Your task to perform on an android device: turn pop-ups on in chrome Image 0: 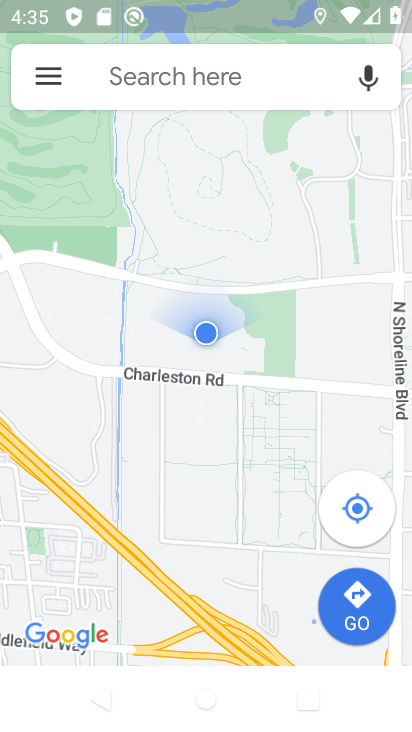
Step 0: press home button
Your task to perform on an android device: turn pop-ups on in chrome Image 1: 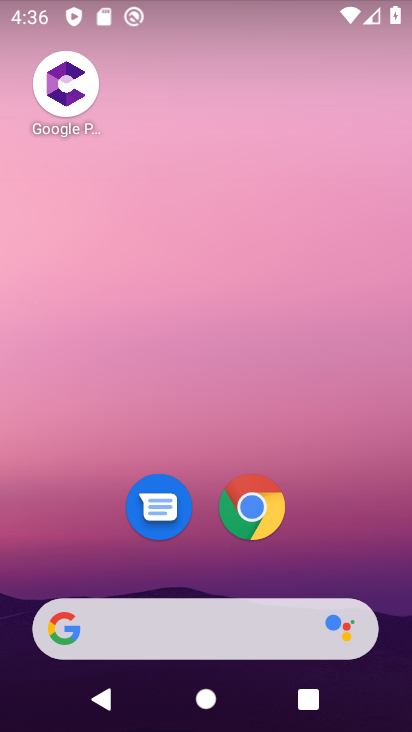
Step 1: click (271, 512)
Your task to perform on an android device: turn pop-ups on in chrome Image 2: 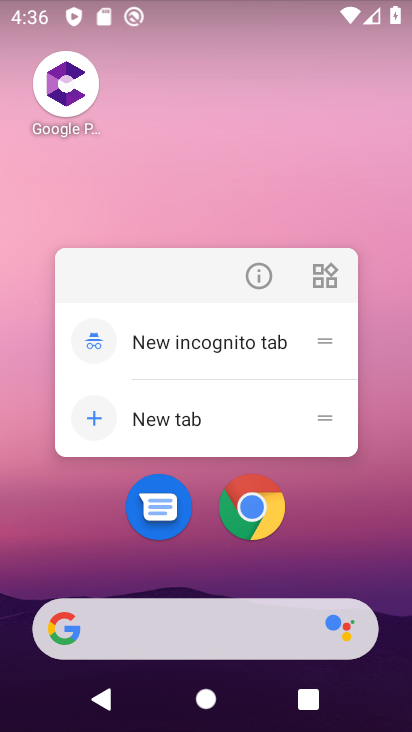
Step 2: click (260, 509)
Your task to perform on an android device: turn pop-ups on in chrome Image 3: 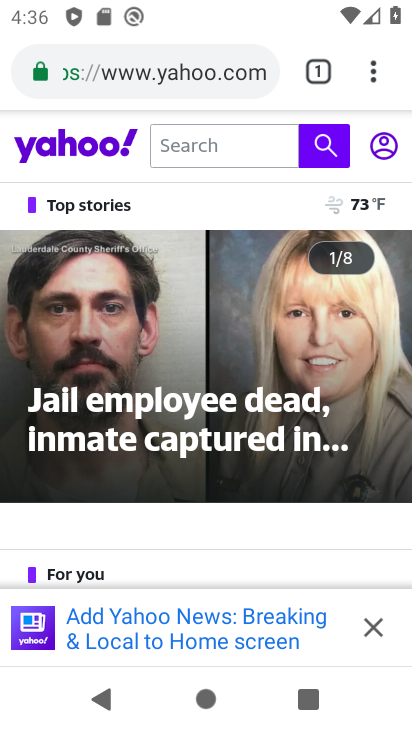
Step 3: click (379, 74)
Your task to perform on an android device: turn pop-ups on in chrome Image 4: 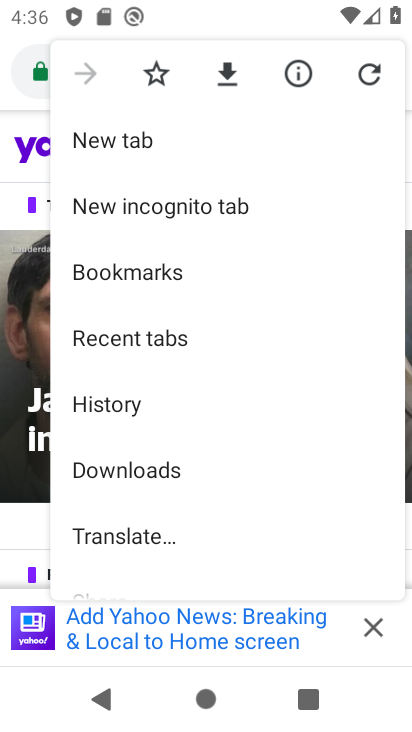
Step 4: drag from (157, 490) to (222, 183)
Your task to perform on an android device: turn pop-ups on in chrome Image 5: 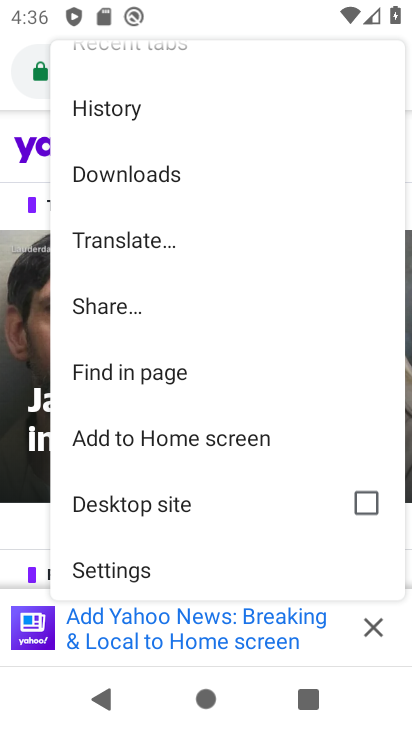
Step 5: drag from (148, 467) to (207, 167)
Your task to perform on an android device: turn pop-ups on in chrome Image 6: 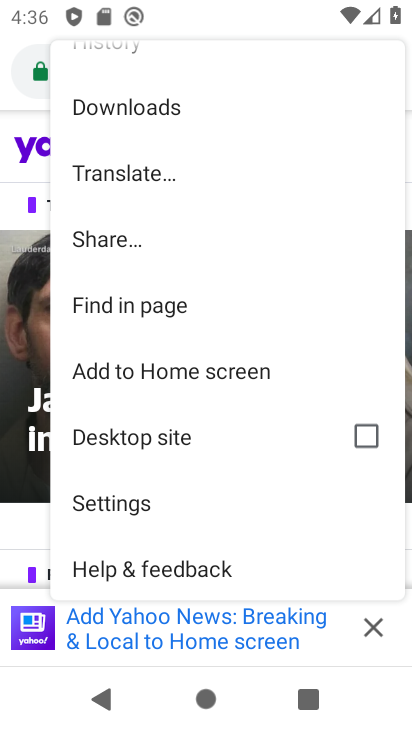
Step 6: click (151, 512)
Your task to perform on an android device: turn pop-ups on in chrome Image 7: 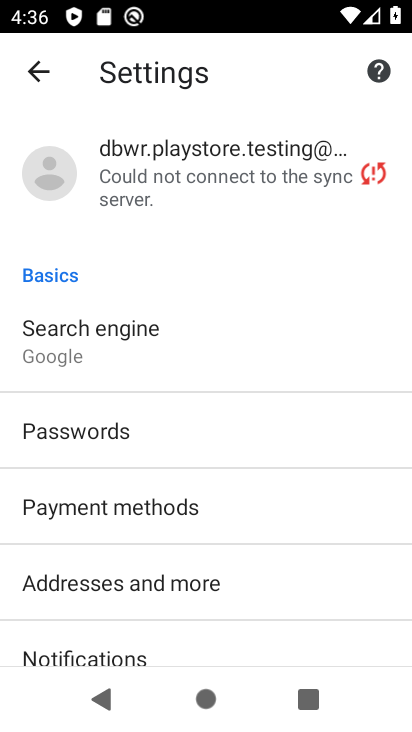
Step 7: drag from (123, 567) to (140, 334)
Your task to perform on an android device: turn pop-ups on in chrome Image 8: 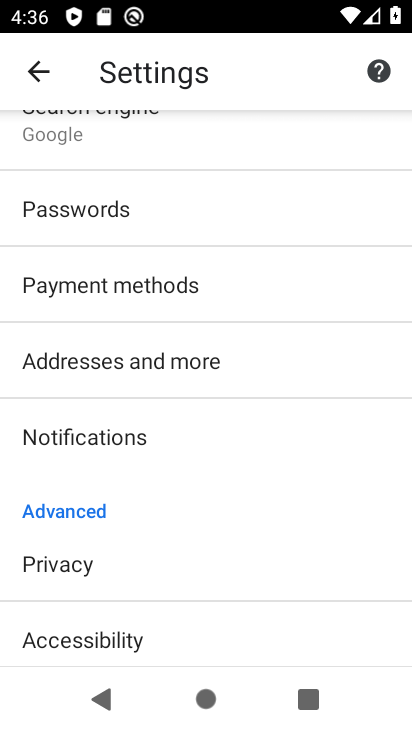
Step 8: drag from (119, 563) to (130, 151)
Your task to perform on an android device: turn pop-ups on in chrome Image 9: 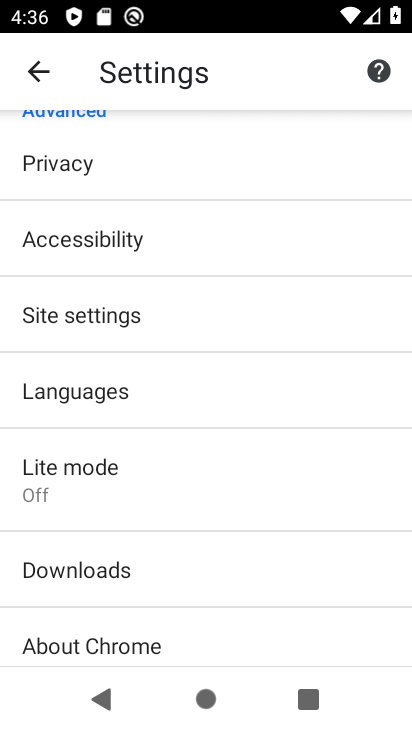
Step 9: click (93, 324)
Your task to perform on an android device: turn pop-ups on in chrome Image 10: 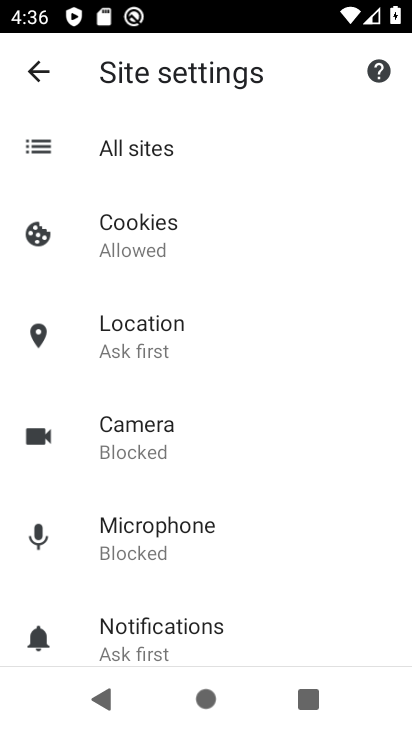
Step 10: drag from (207, 578) to (241, 274)
Your task to perform on an android device: turn pop-ups on in chrome Image 11: 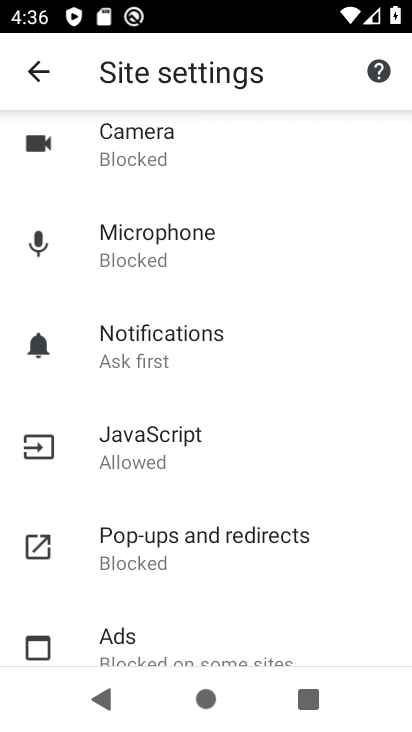
Step 11: click (186, 548)
Your task to perform on an android device: turn pop-ups on in chrome Image 12: 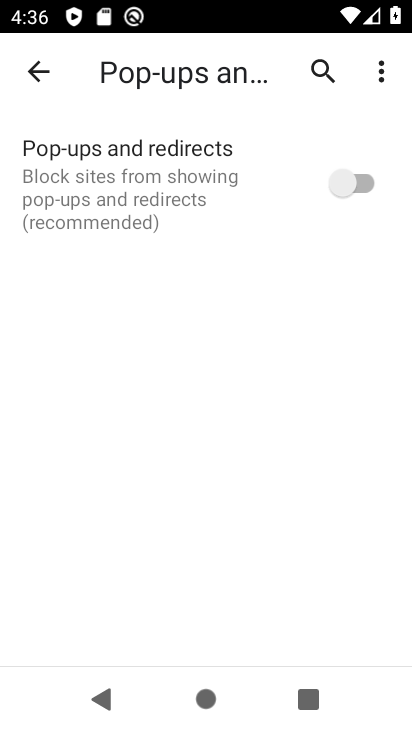
Step 12: click (183, 545)
Your task to perform on an android device: turn pop-ups on in chrome Image 13: 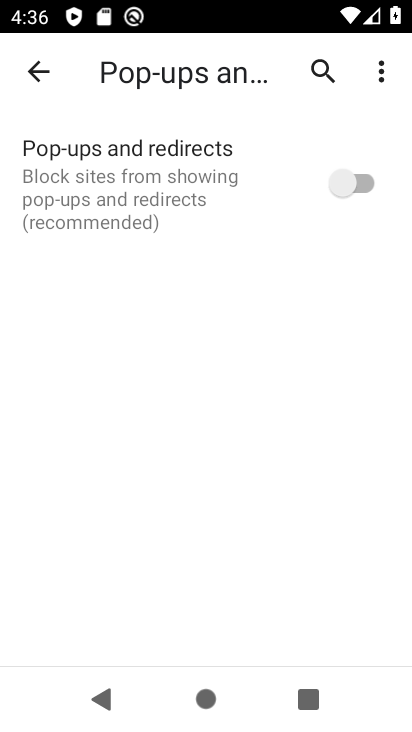
Step 13: click (379, 183)
Your task to perform on an android device: turn pop-ups on in chrome Image 14: 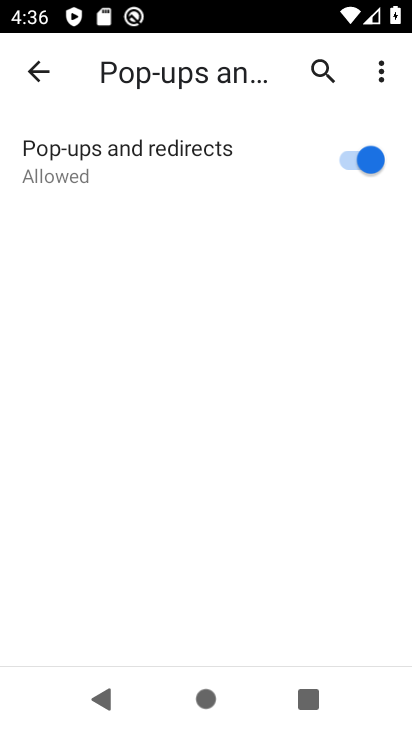
Step 14: task complete